Your task to perform on an android device: turn on sleep mode Image 0: 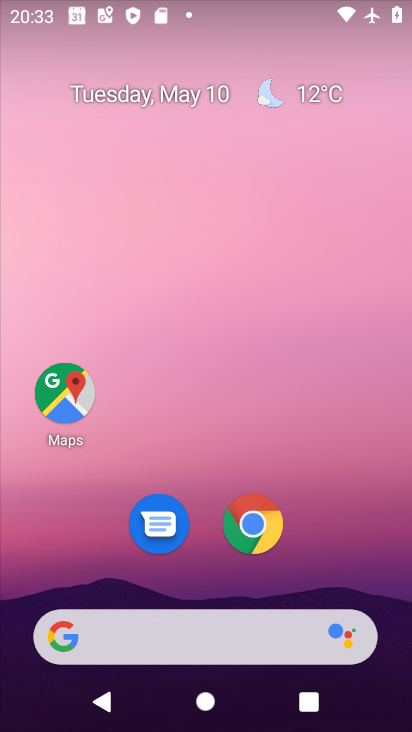
Step 0: drag from (342, 514) to (294, 42)
Your task to perform on an android device: turn on sleep mode Image 1: 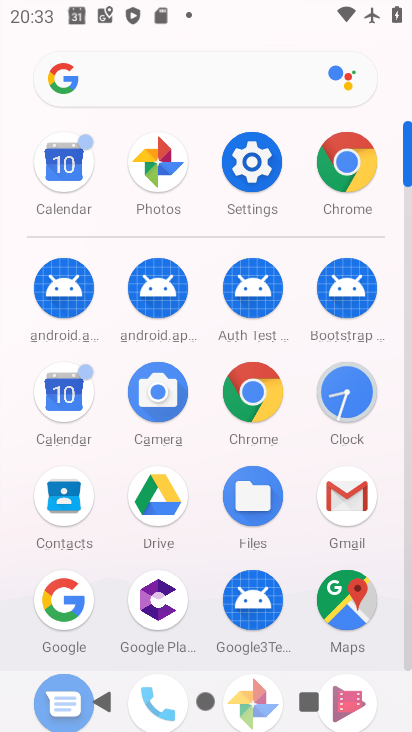
Step 1: click (257, 157)
Your task to perform on an android device: turn on sleep mode Image 2: 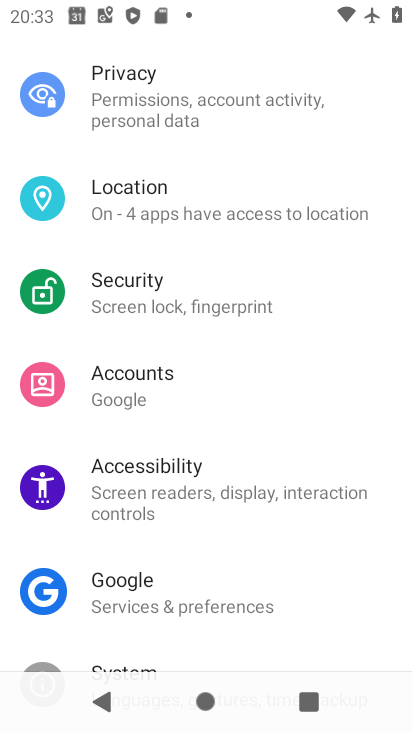
Step 2: drag from (250, 169) to (233, 607)
Your task to perform on an android device: turn on sleep mode Image 3: 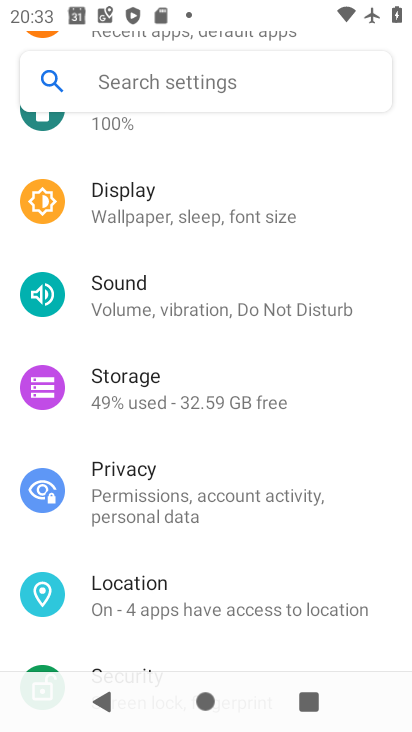
Step 3: click (225, 206)
Your task to perform on an android device: turn on sleep mode Image 4: 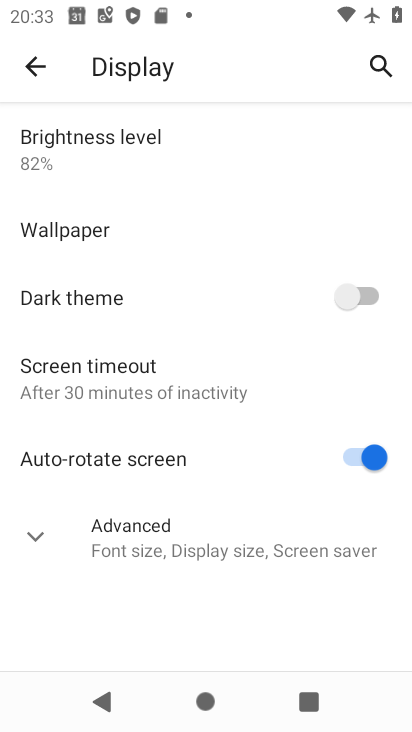
Step 4: click (30, 532)
Your task to perform on an android device: turn on sleep mode Image 5: 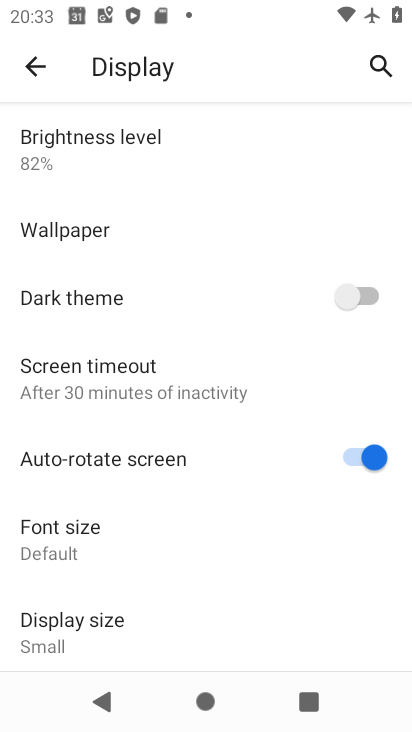
Step 5: task complete